Your task to perform on an android device: see tabs open on other devices in the chrome app Image 0: 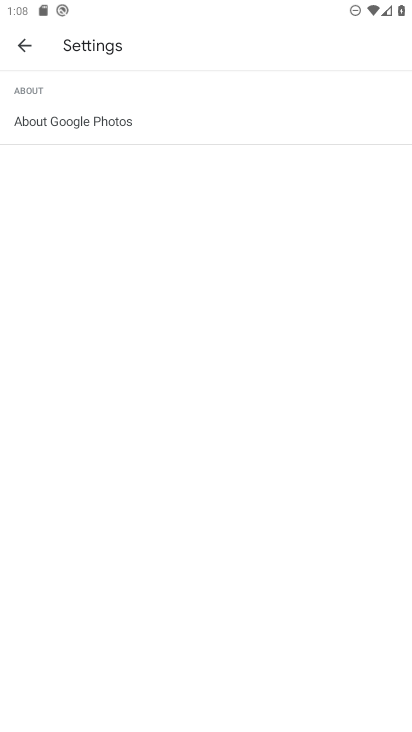
Step 0: press home button
Your task to perform on an android device: see tabs open on other devices in the chrome app Image 1: 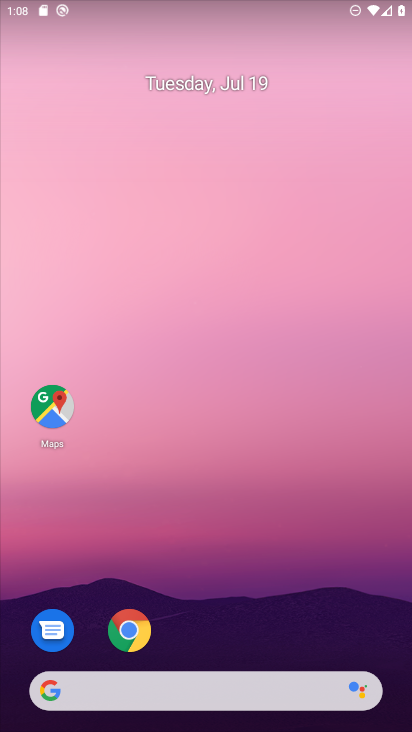
Step 1: drag from (147, 690) to (305, 77)
Your task to perform on an android device: see tabs open on other devices in the chrome app Image 2: 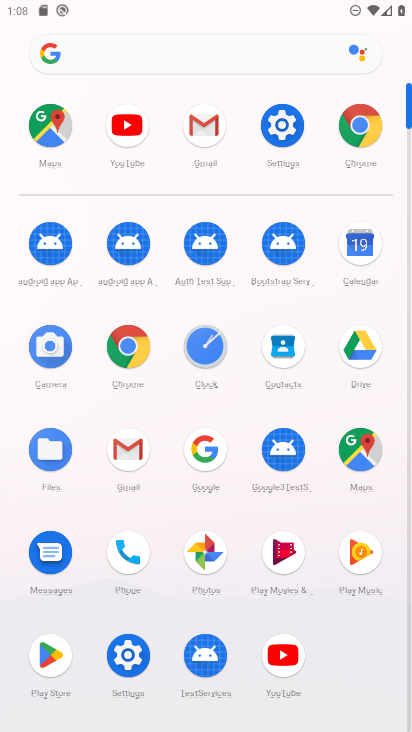
Step 2: click (360, 125)
Your task to perform on an android device: see tabs open on other devices in the chrome app Image 3: 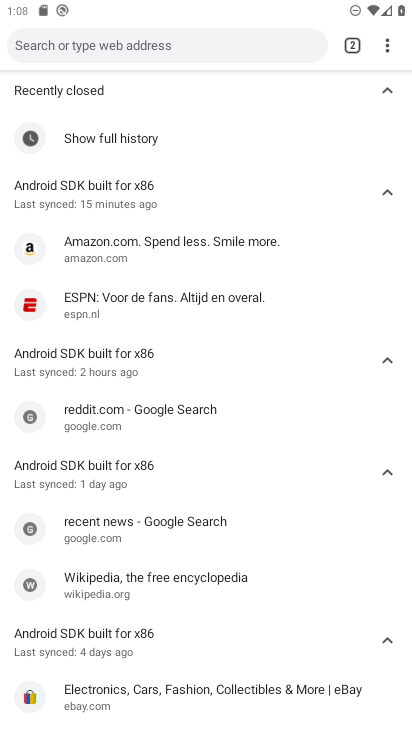
Step 3: task complete